Your task to perform on an android device: What's the weather? Image 0: 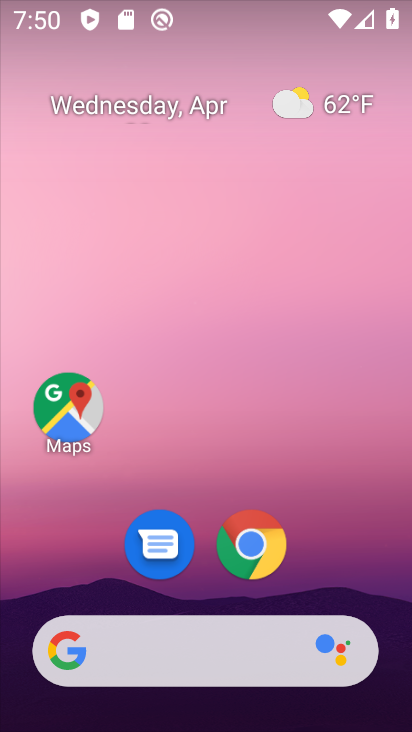
Step 0: click (271, 545)
Your task to perform on an android device: What's the weather? Image 1: 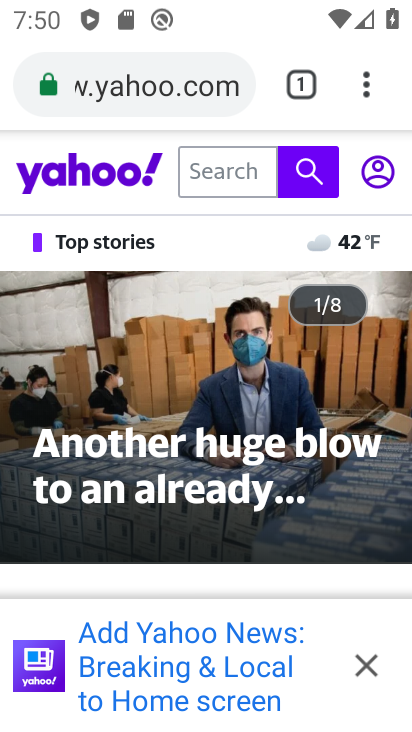
Step 1: click (305, 88)
Your task to perform on an android device: What's the weather? Image 2: 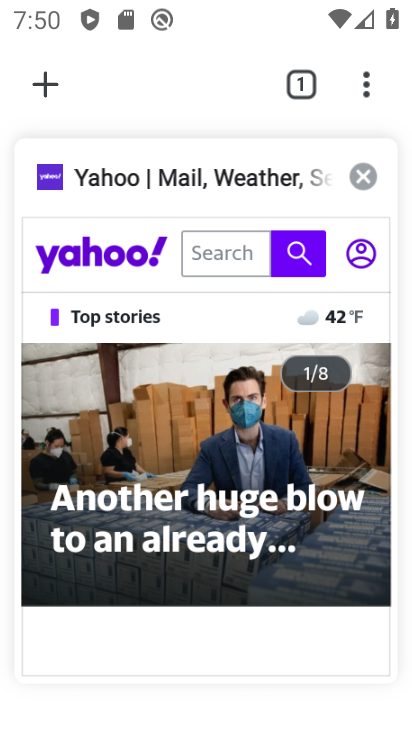
Step 2: click (48, 83)
Your task to perform on an android device: What's the weather? Image 3: 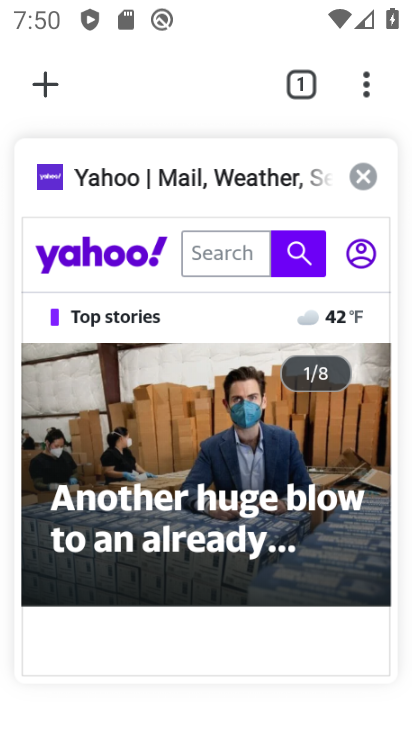
Step 3: click (41, 80)
Your task to perform on an android device: What's the weather? Image 4: 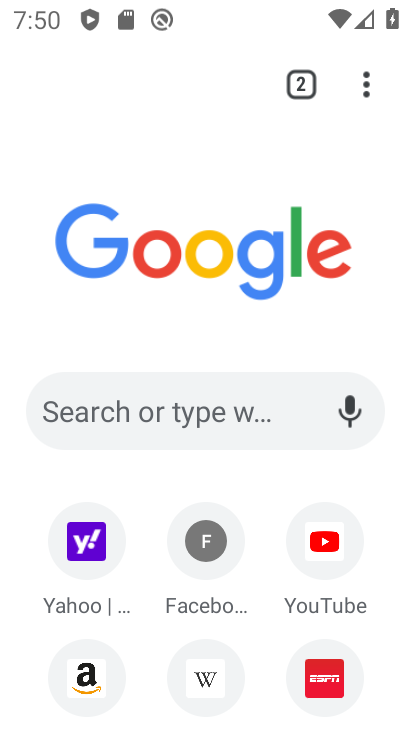
Step 4: click (123, 392)
Your task to perform on an android device: What's the weather? Image 5: 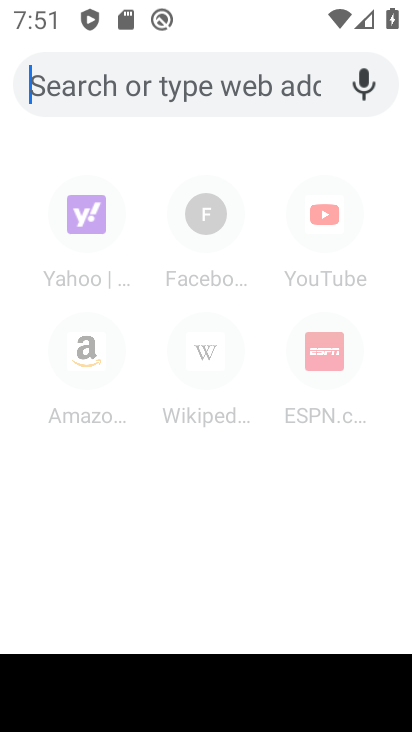
Step 5: type "whats the weather"
Your task to perform on an android device: What's the weather? Image 6: 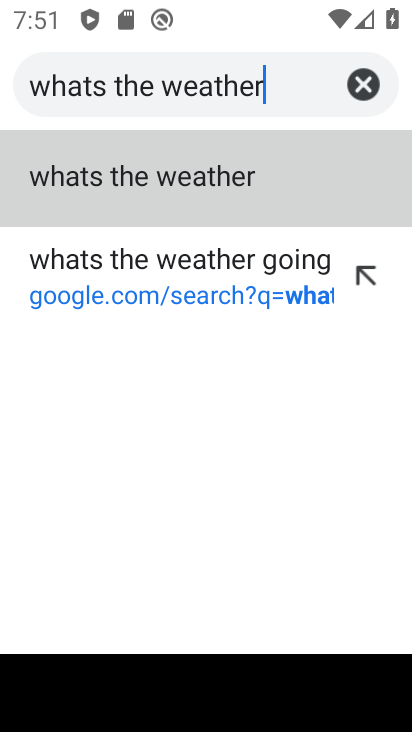
Step 6: click (207, 283)
Your task to perform on an android device: What's the weather? Image 7: 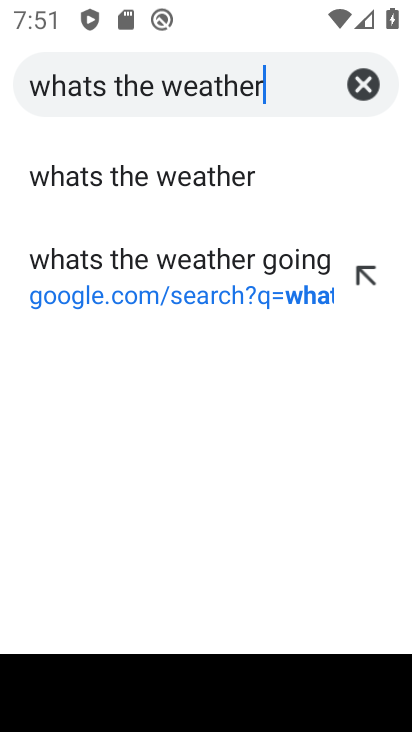
Step 7: click (226, 180)
Your task to perform on an android device: What's the weather? Image 8: 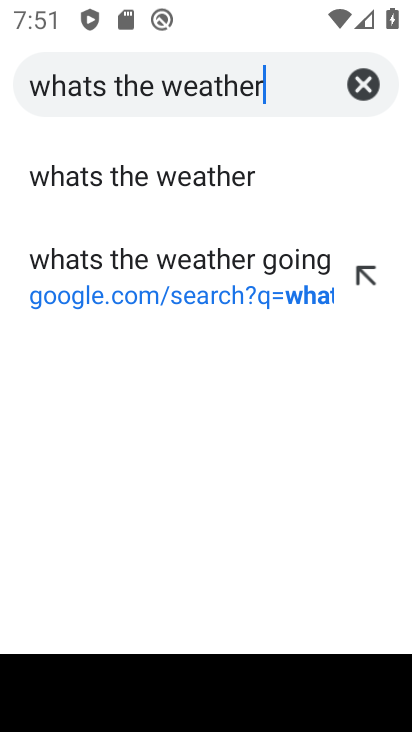
Step 8: click (222, 175)
Your task to perform on an android device: What's the weather? Image 9: 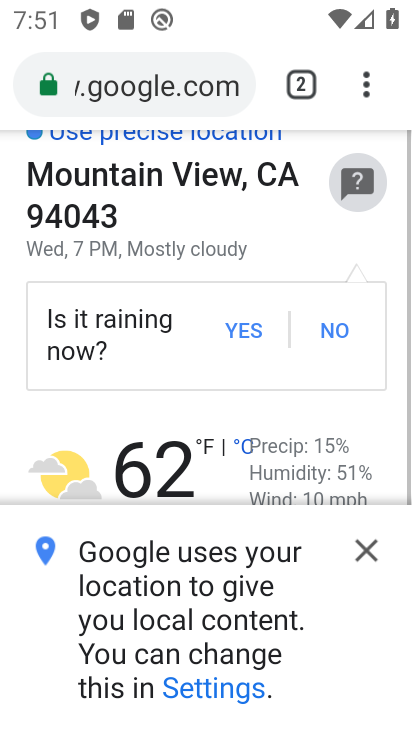
Step 9: click (361, 550)
Your task to perform on an android device: What's the weather? Image 10: 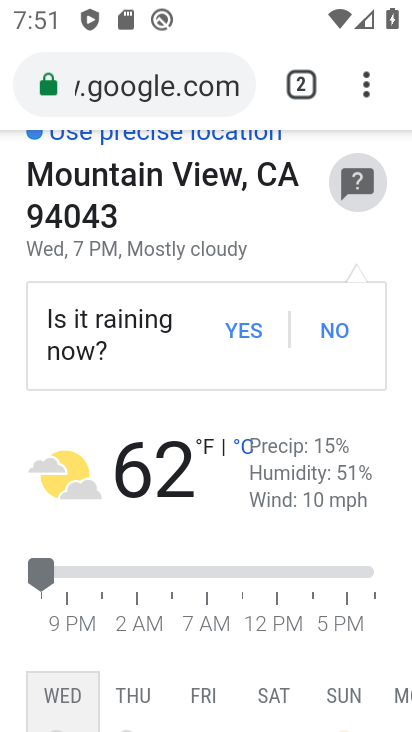
Step 10: task complete